Your task to perform on an android device: toggle notifications settings in the gmail app Image 0: 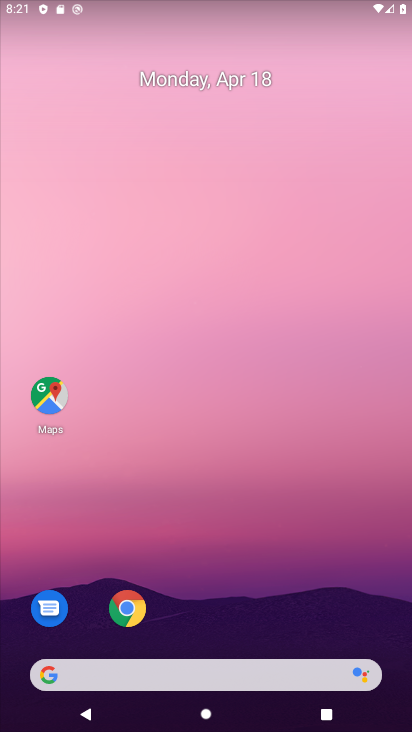
Step 0: drag from (197, 542) to (191, 198)
Your task to perform on an android device: toggle notifications settings in the gmail app Image 1: 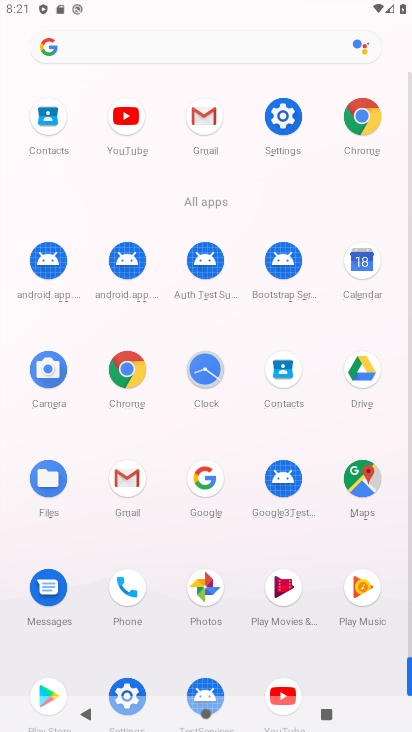
Step 1: click (202, 117)
Your task to perform on an android device: toggle notifications settings in the gmail app Image 2: 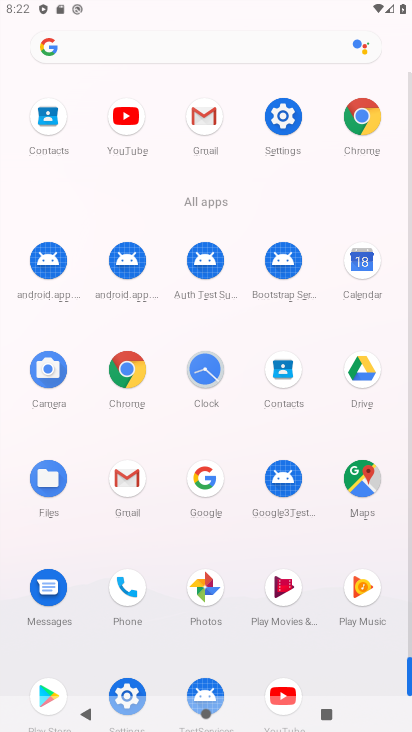
Step 2: click (203, 116)
Your task to perform on an android device: toggle notifications settings in the gmail app Image 3: 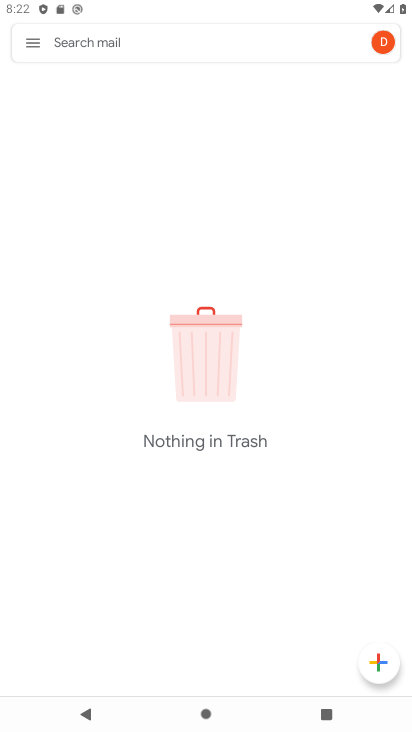
Step 3: click (32, 45)
Your task to perform on an android device: toggle notifications settings in the gmail app Image 4: 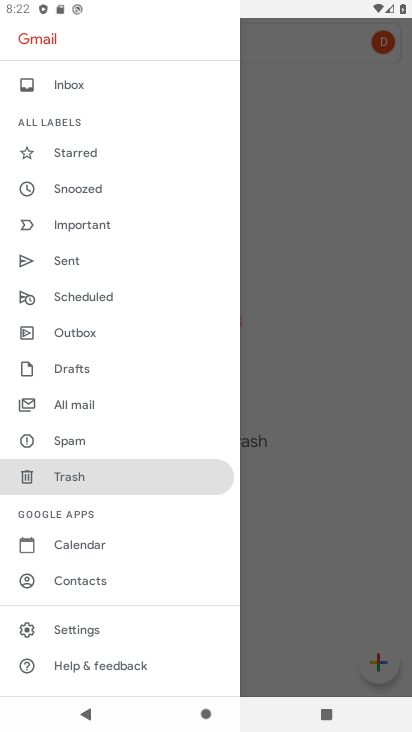
Step 4: click (73, 632)
Your task to perform on an android device: toggle notifications settings in the gmail app Image 5: 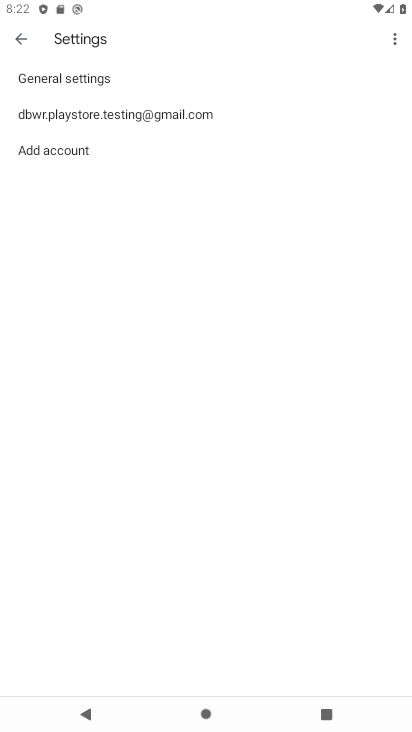
Step 5: click (116, 112)
Your task to perform on an android device: toggle notifications settings in the gmail app Image 6: 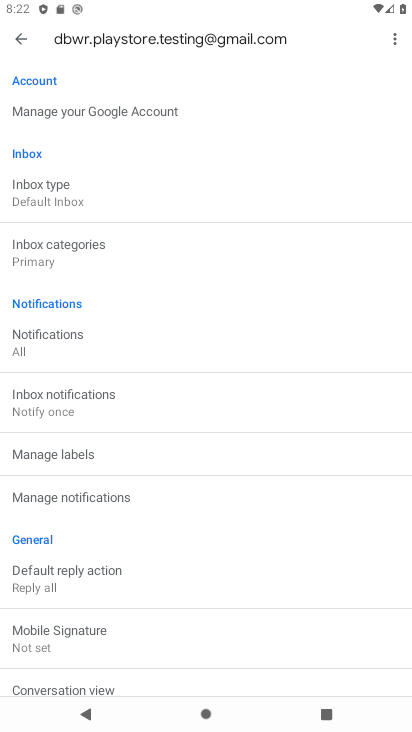
Step 6: click (85, 498)
Your task to perform on an android device: toggle notifications settings in the gmail app Image 7: 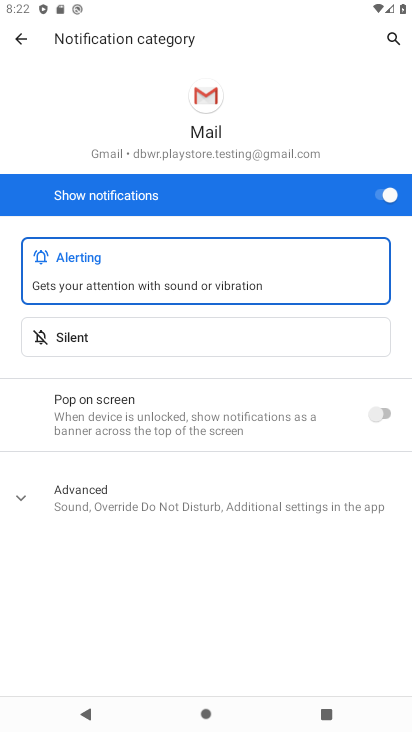
Step 7: click (390, 193)
Your task to perform on an android device: toggle notifications settings in the gmail app Image 8: 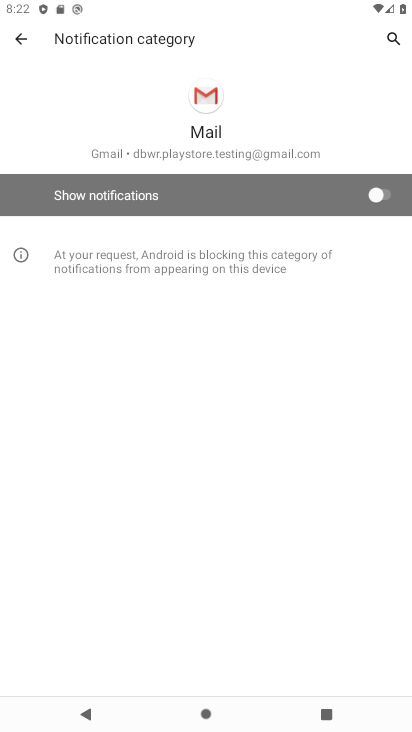
Step 8: task complete